Your task to perform on an android device: Go to CNN.com Image 0: 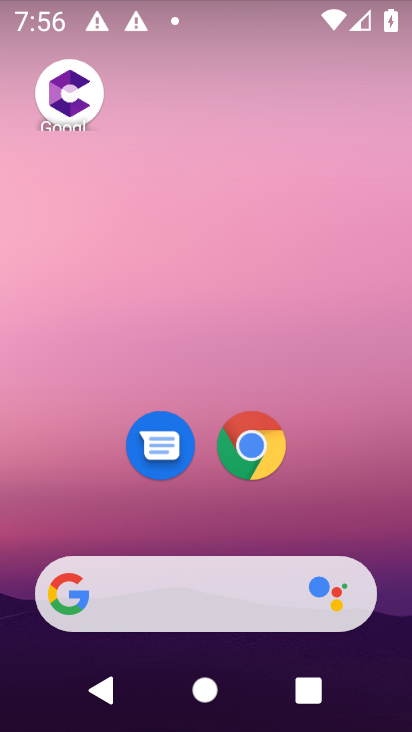
Step 0: click (270, 442)
Your task to perform on an android device: Go to CNN.com Image 1: 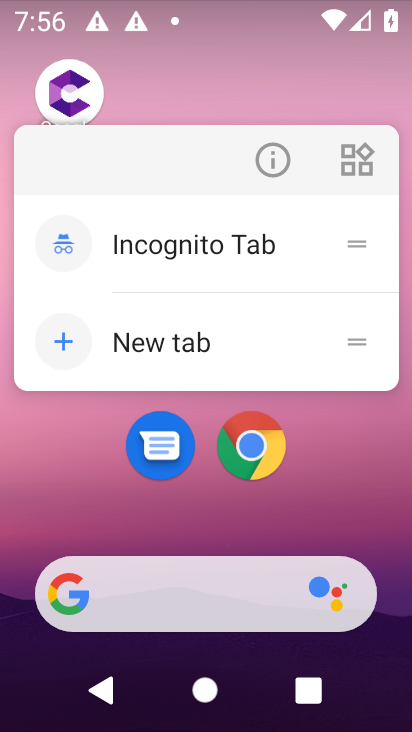
Step 1: click (270, 442)
Your task to perform on an android device: Go to CNN.com Image 2: 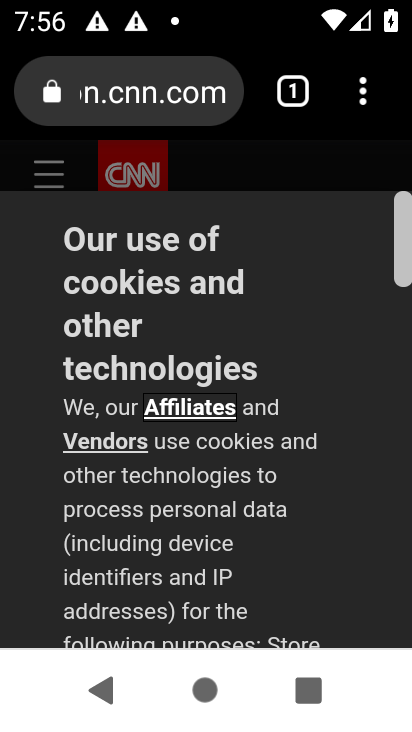
Step 2: task complete